Your task to perform on an android device: How big is the earth? Image 0: 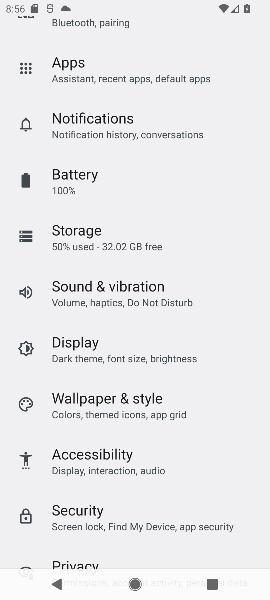
Step 0: press home button
Your task to perform on an android device: How big is the earth? Image 1: 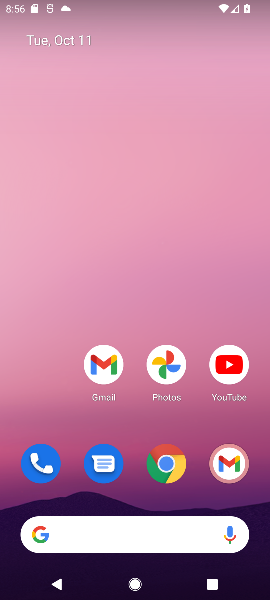
Step 1: drag from (114, 479) to (102, 129)
Your task to perform on an android device: How big is the earth? Image 2: 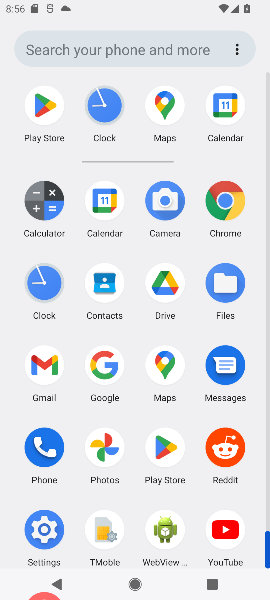
Step 2: click (103, 355)
Your task to perform on an android device: How big is the earth? Image 3: 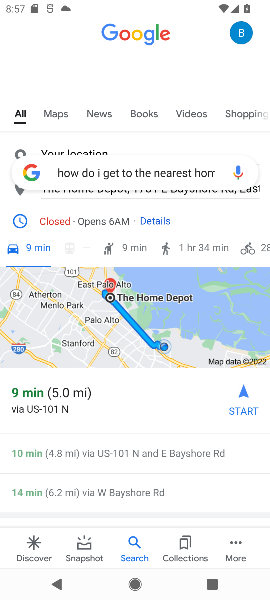
Step 3: click (134, 176)
Your task to perform on an android device: How big is the earth? Image 4: 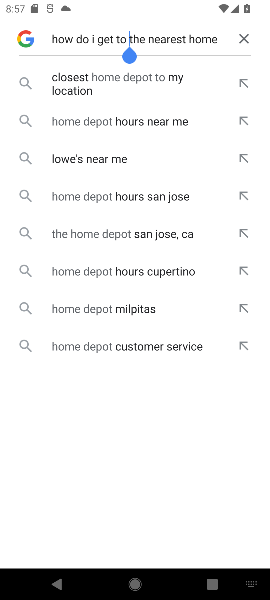
Step 4: click (235, 36)
Your task to perform on an android device: How big is the earth? Image 5: 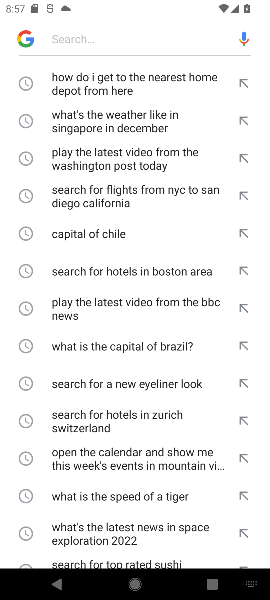
Step 5: click (136, 35)
Your task to perform on an android device: How big is the earth? Image 6: 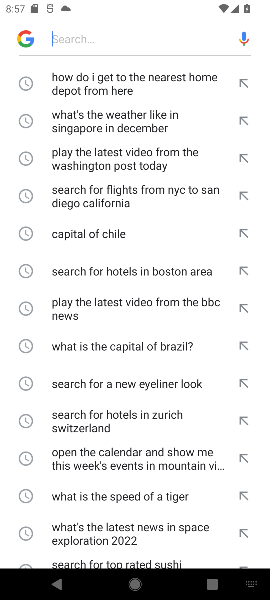
Step 6: type "How big is the earth? "
Your task to perform on an android device: How big is the earth? Image 7: 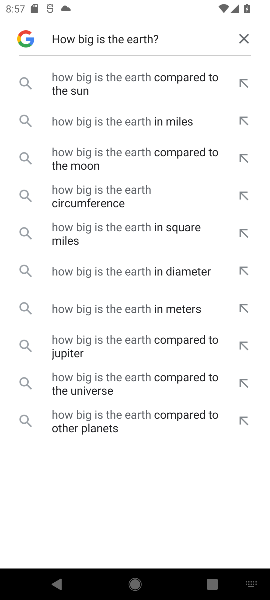
Step 7: click (115, 82)
Your task to perform on an android device: How big is the earth? Image 8: 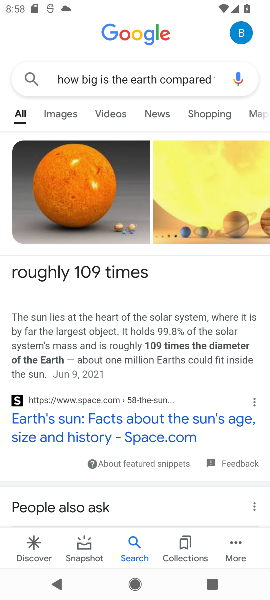
Step 8: task complete